Your task to perform on an android device: open app "Adobe Acrobat Reader" Image 0: 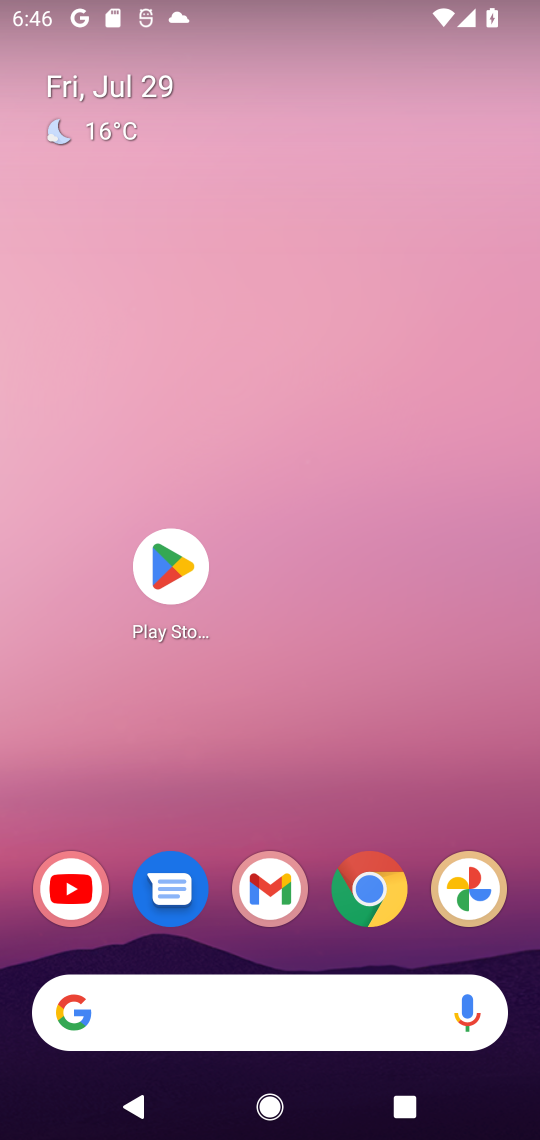
Step 0: press home button
Your task to perform on an android device: open app "Adobe Acrobat Reader" Image 1: 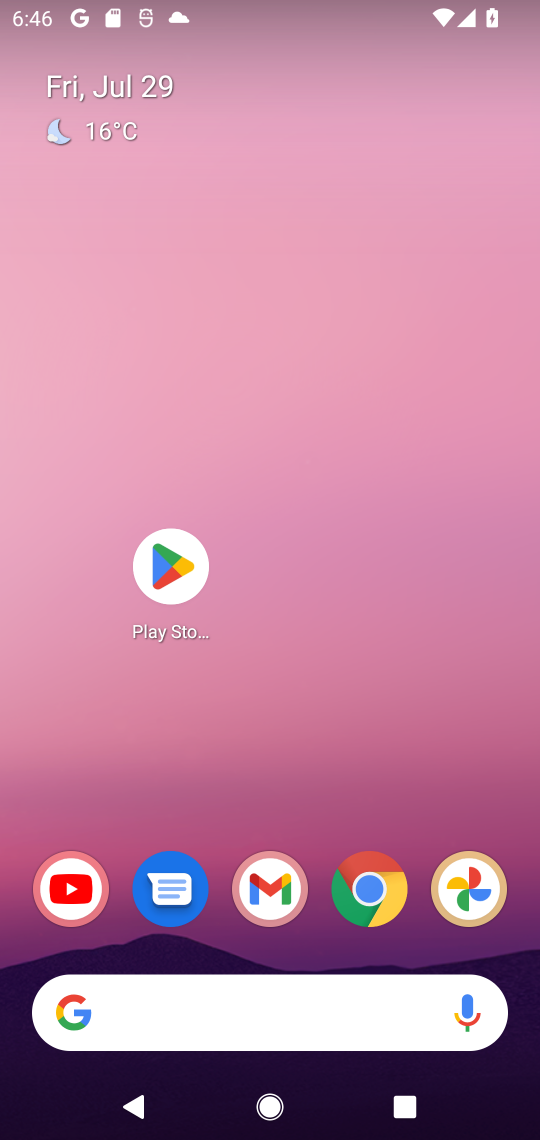
Step 1: click (184, 568)
Your task to perform on an android device: open app "Adobe Acrobat Reader" Image 2: 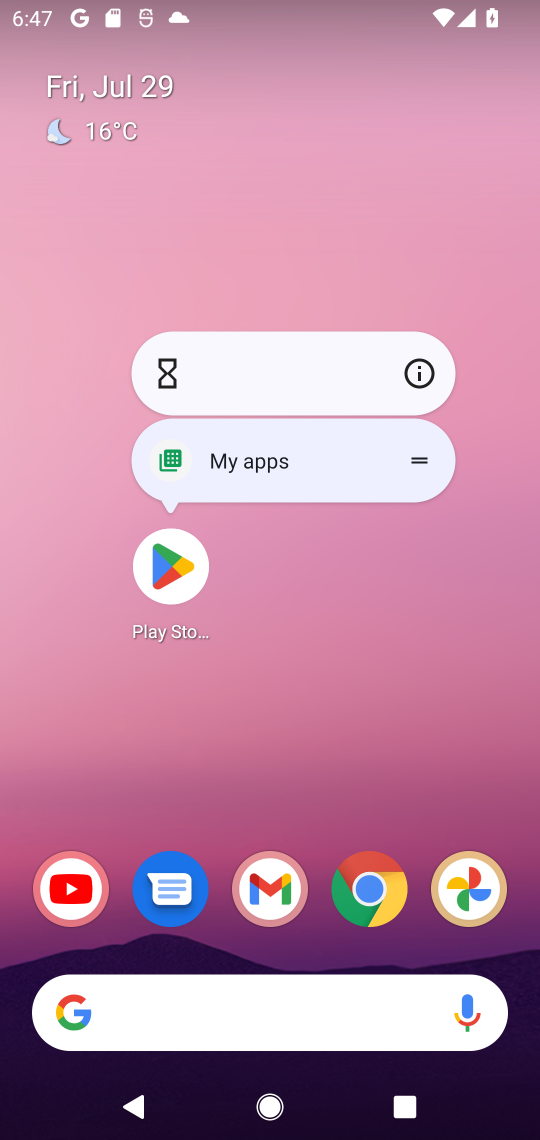
Step 2: click (161, 571)
Your task to perform on an android device: open app "Adobe Acrobat Reader" Image 3: 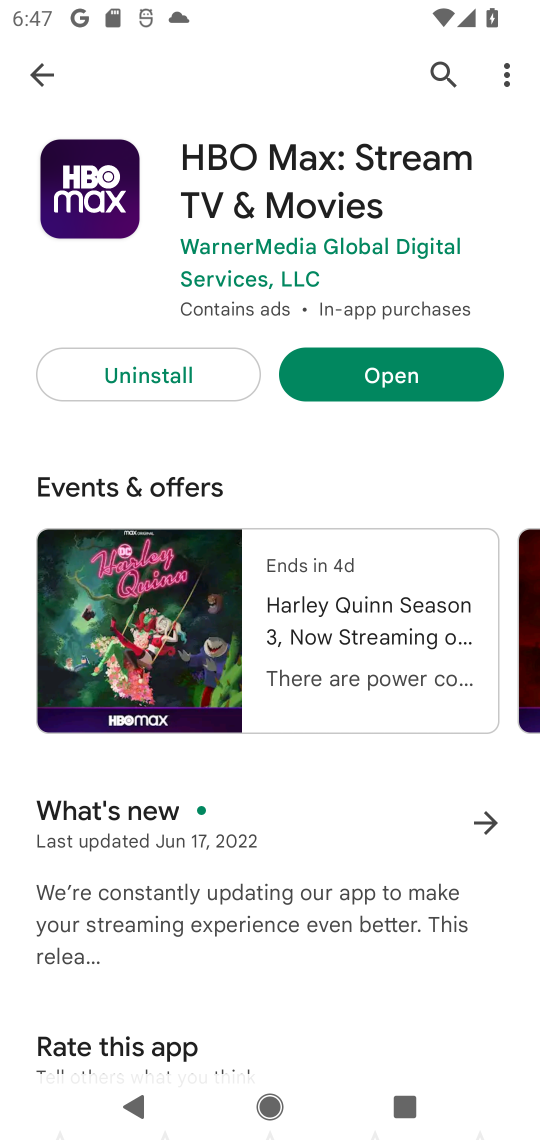
Step 3: click (438, 73)
Your task to perform on an android device: open app "Adobe Acrobat Reader" Image 4: 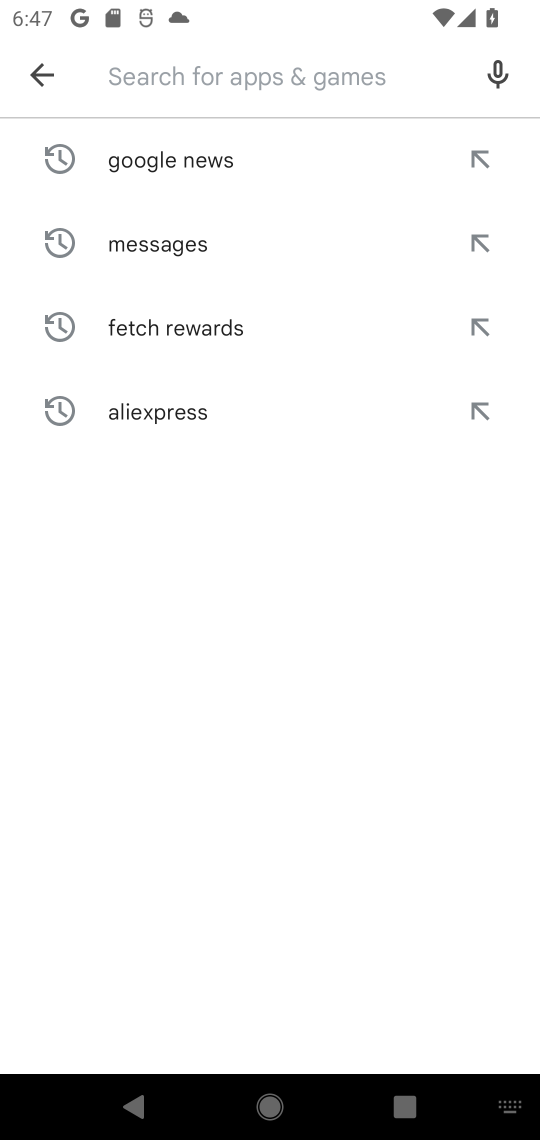
Step 4: type "Adobe Acrobat Reader"
Your task to perform on an android device: open app "Adobe Acrobat Reader" Image 5: 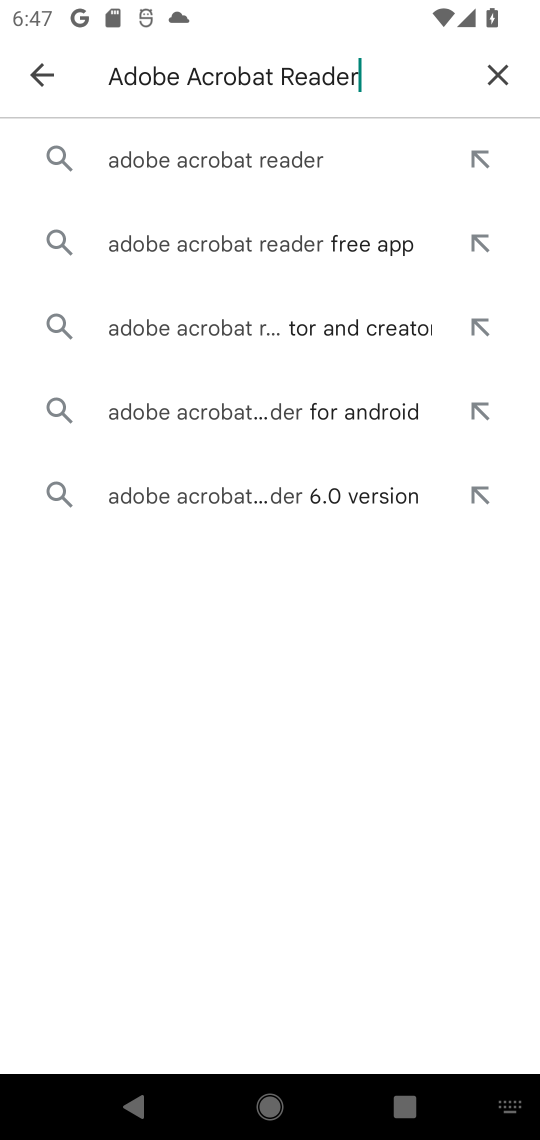
Step 5: click (260, 159)
Your task to perform on an android device: open app "Adobe Acrobat Reader" Image 6: 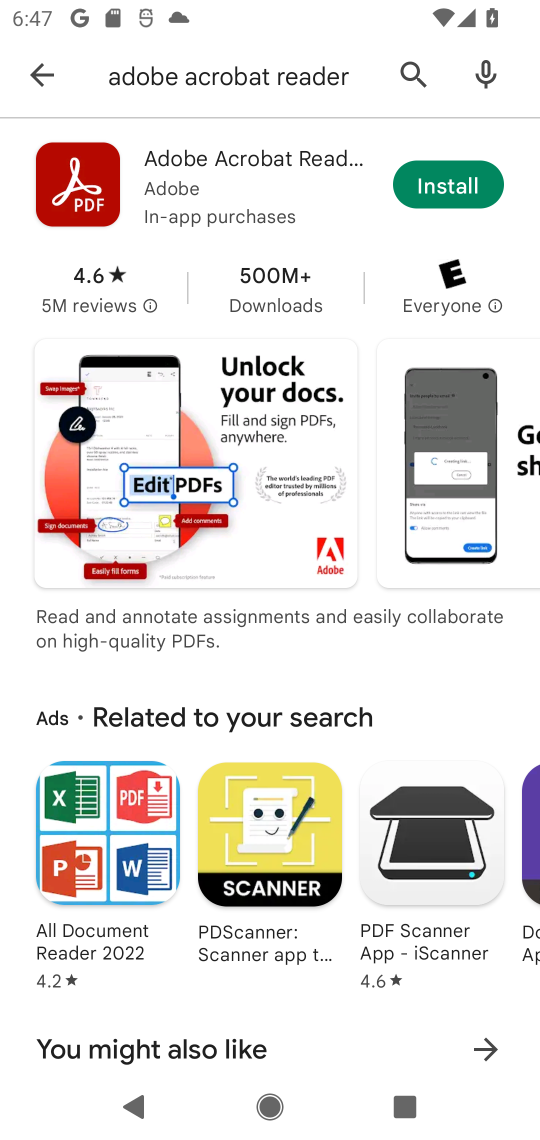
Step 6: task complete